Your task to perform on an android device: Open network settings Image 0: 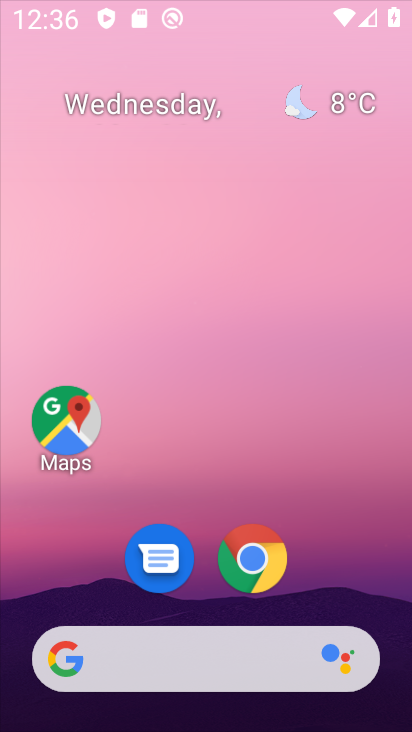
Step 0: click (56, 77)
Your task to perform on an android device: Open network settings Image 1: 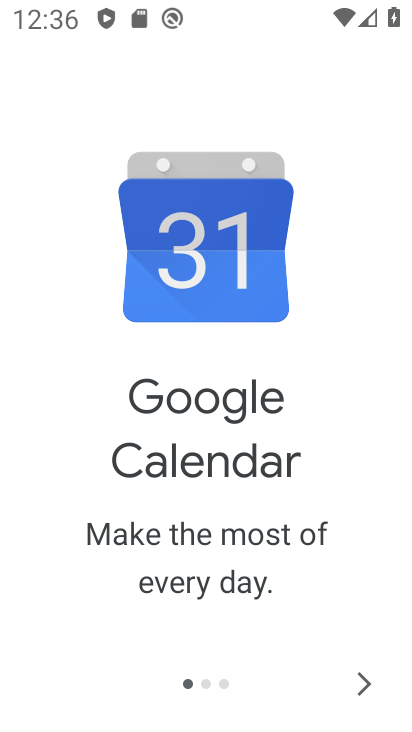
Step 1: press back button
Your task to perform on an android device: Open network settings Image 2: 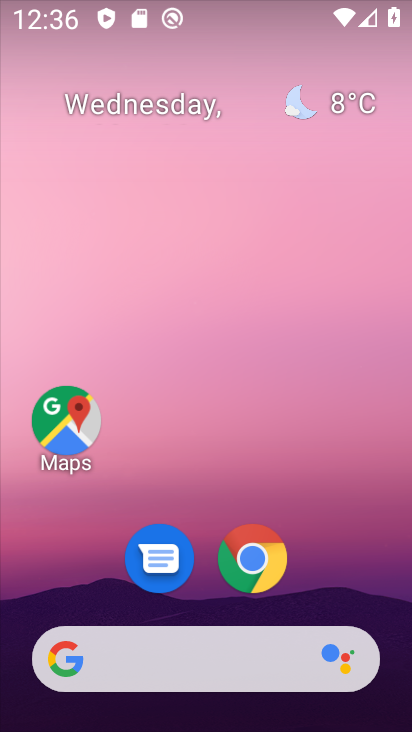
Step 2: drag from (369, 512) to (239, 34)
Your task to perform on an android device: Open network settings Image 3: 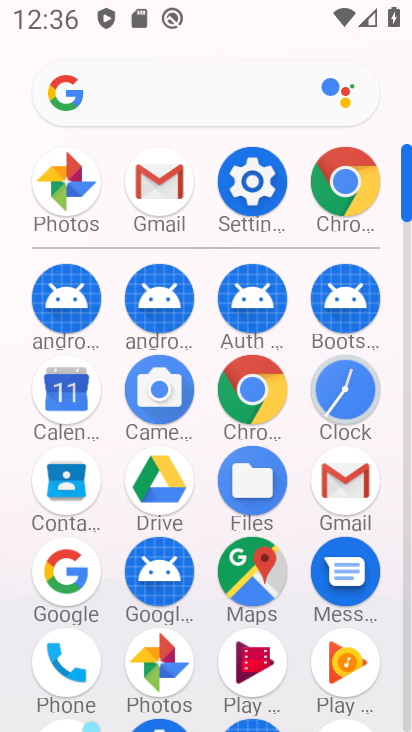
Step 3: click (252, 179)
Your task to perform on an android device: Open network settings Image 4: 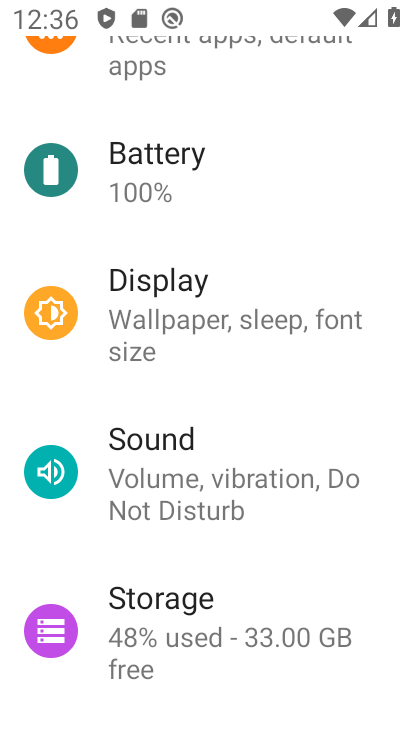
Step 4: drag from (257, 144) to (255, 535)
Your task to perform on an android device: Open network settings Image 5: 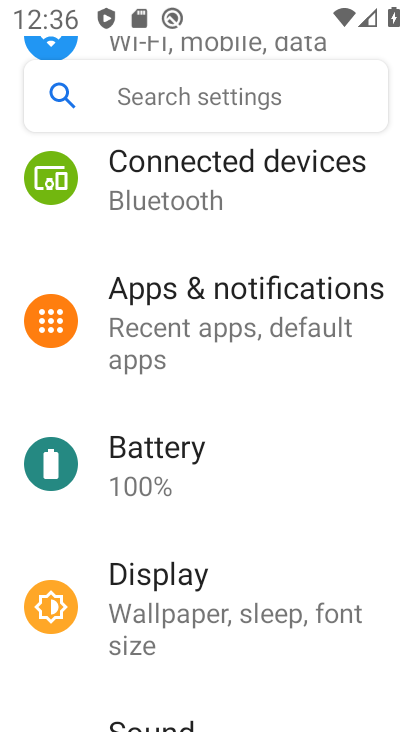
Step 5: drag from (250, 305) to (257, 621)
Your task to perform on an android device: Open network settings Image 6: 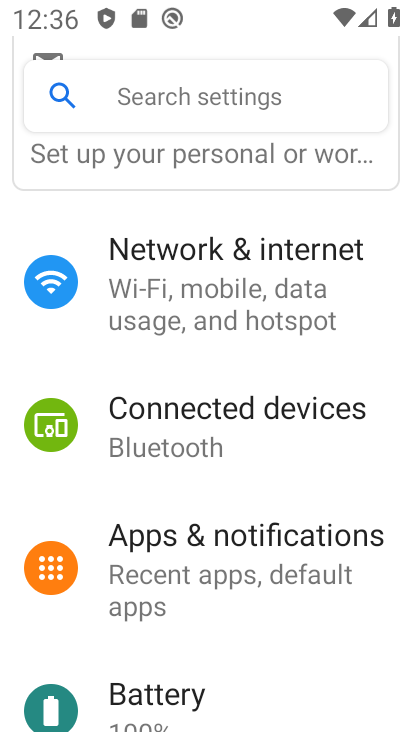
Step 6: drag from (281, 293) to (283, 551)
Your task to perform on an android device: Open network settings Image 7: 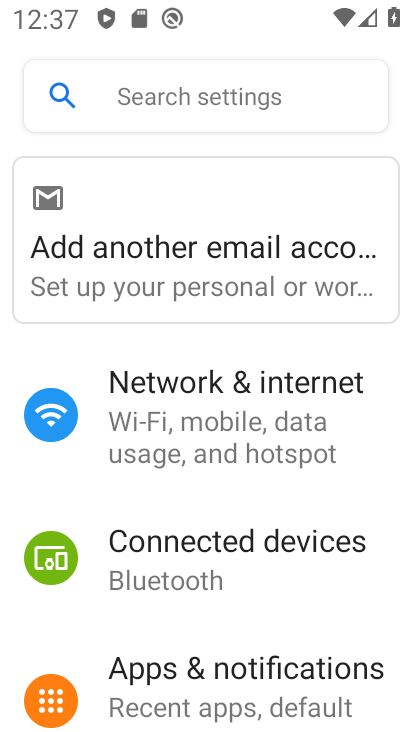
Step 7: click (264, 404)
Your task to perform on an android device: Open network settings Image 8: 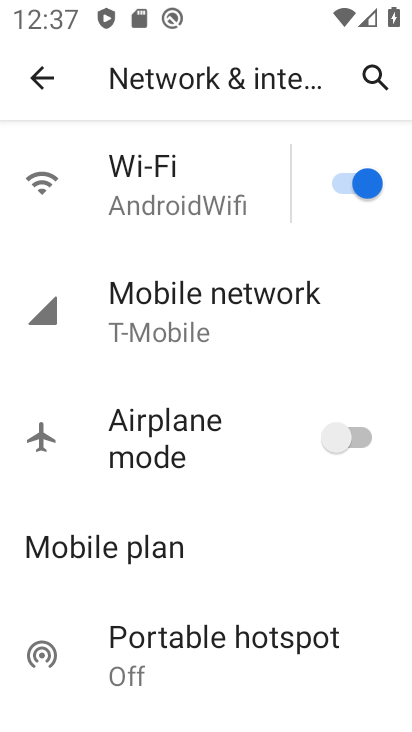
Step 8: task complete